Your task to perform on an android device: delete a single message in the gmail app Image 0: 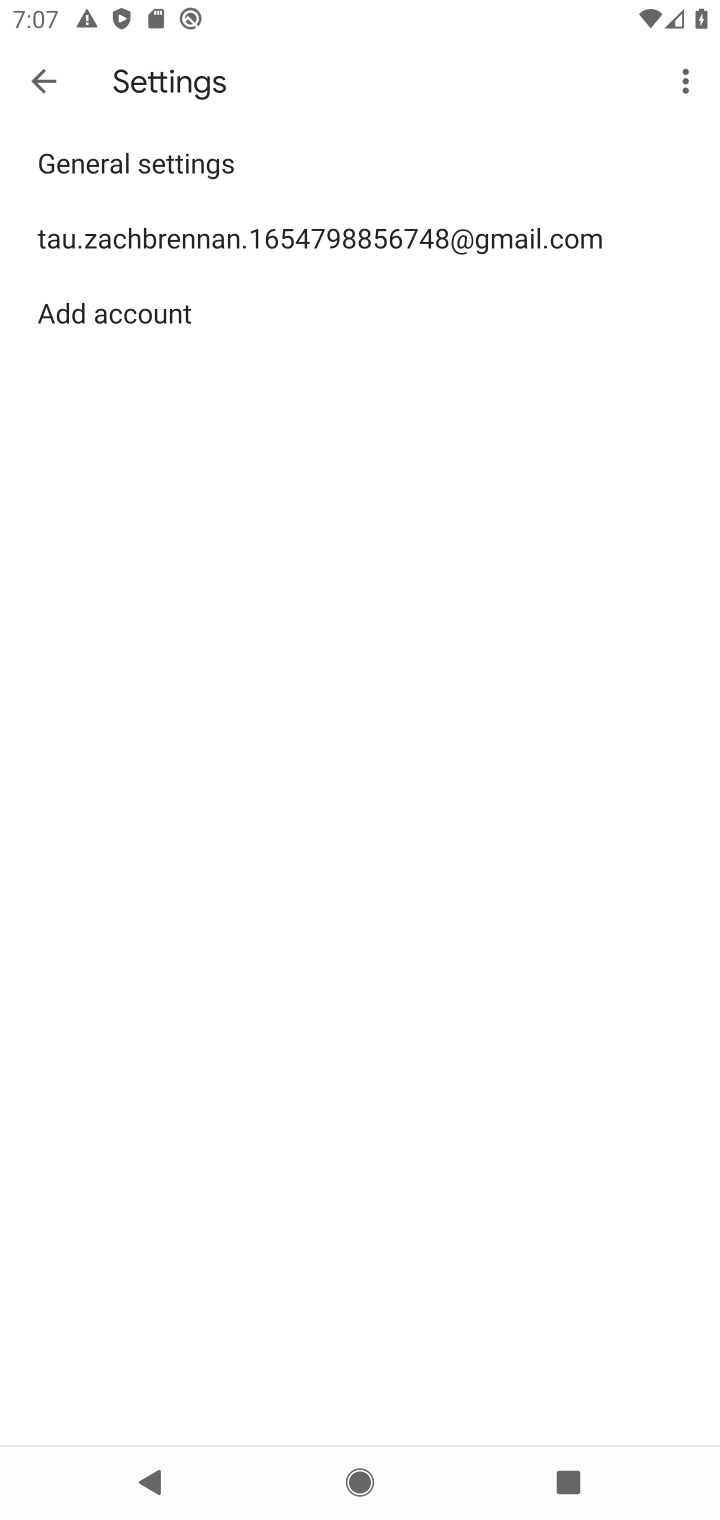
Step 0: click (28, 76)
Your task to perform on an android device: delete a single message in the gmail app Image 1: 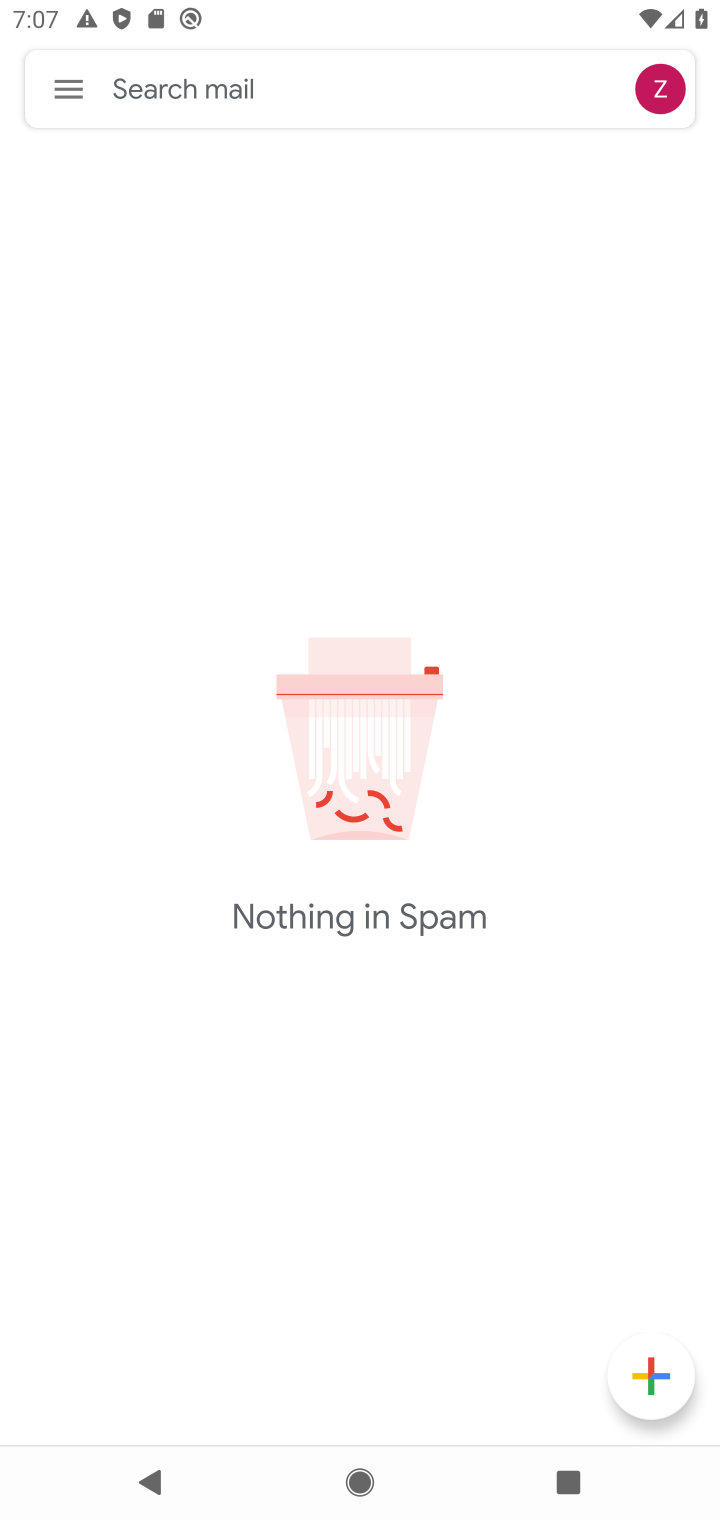
Step 1: click (78, 95)
Your task to perform on an android device: delete a single message in the gmail app Image 2: 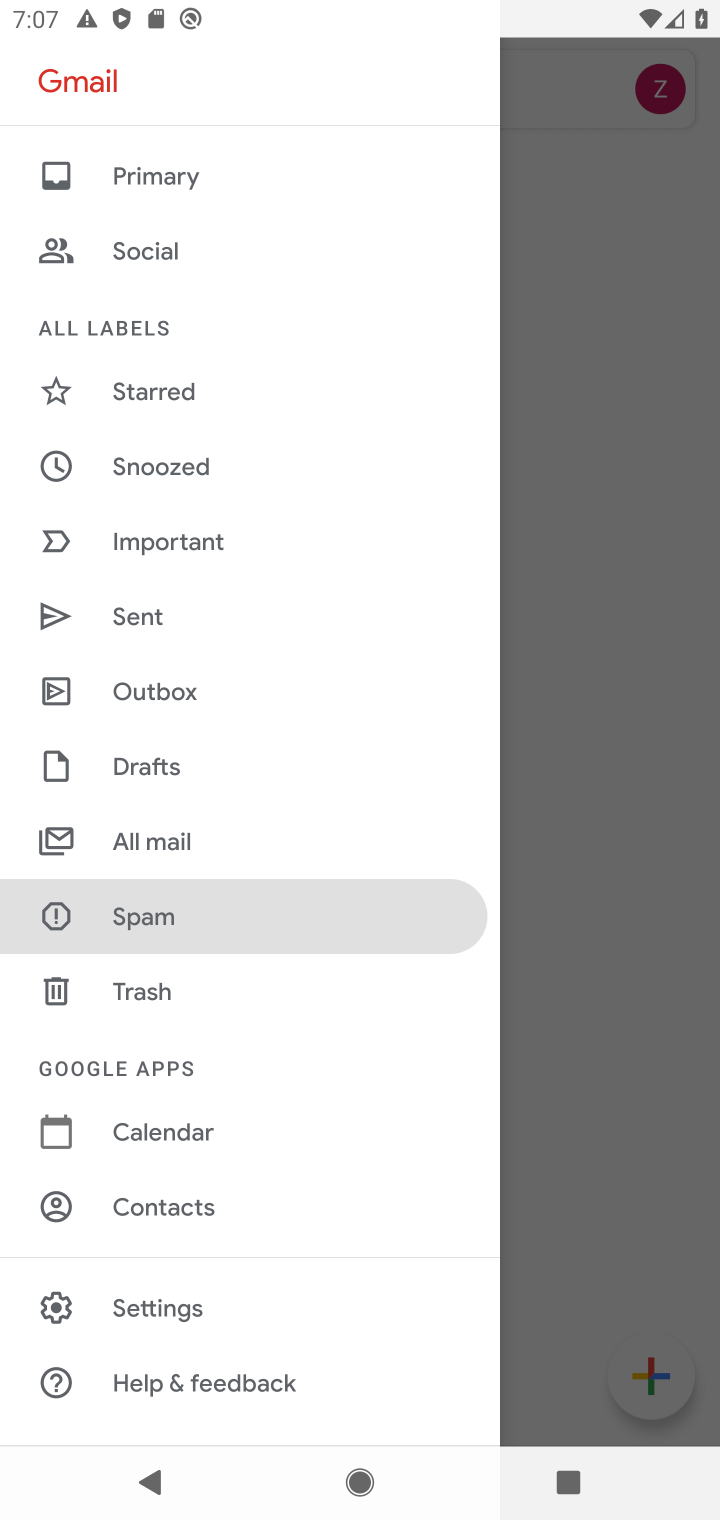
Step 2: click (186, 171)
Your task to perform on an android device: delete a single message in the gmail app Image 3: 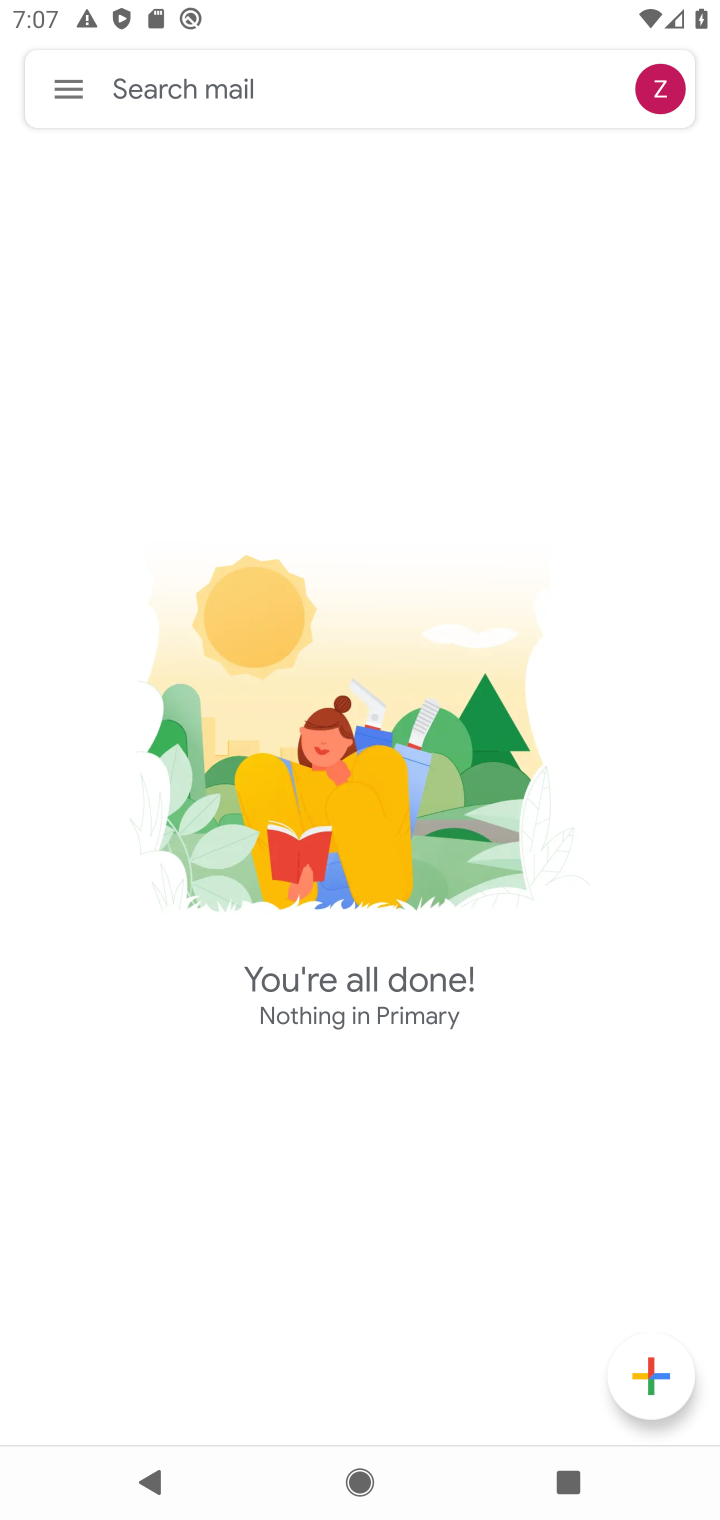
Step 3: task complete